Your task to perform on an android device: Open the Play Movies app and select the watchlist tab. Image 0: 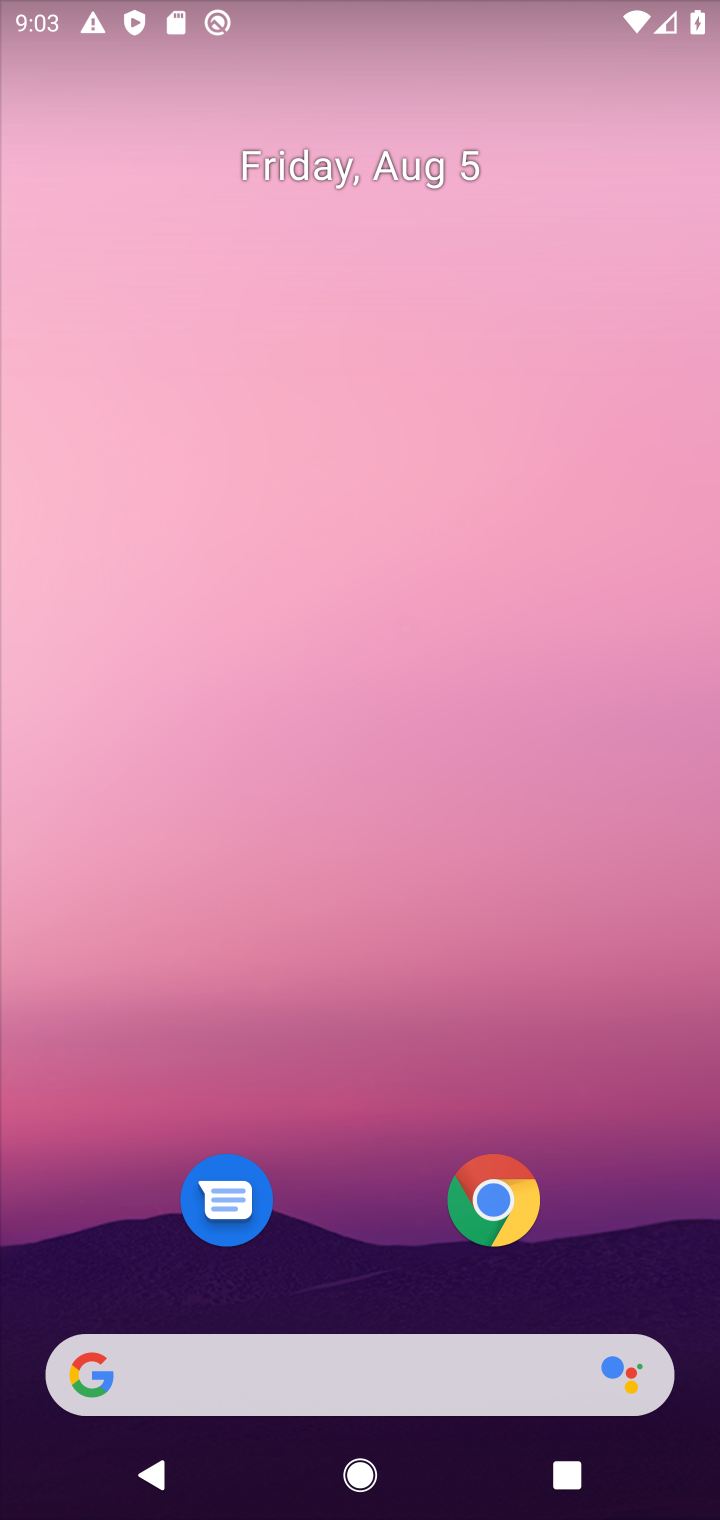
Step 0: drag from (635, 1145) to (548, 338)
Your task to perform on an android device: Open the Play Movies app and select the watchlist tab. Image 1: 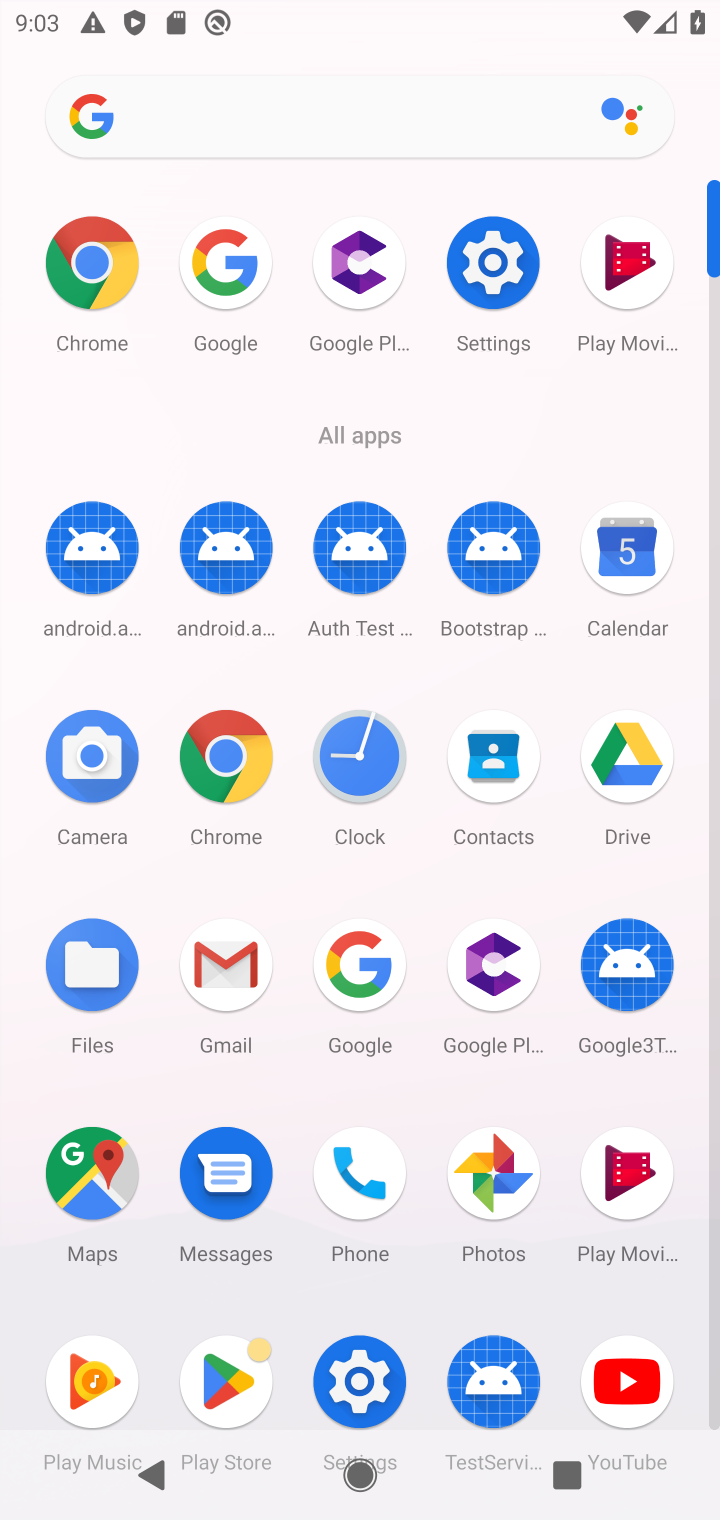
Step 1: click (632, 1165)
Your task to perform on an android device: Open the Play Movies app and select the watchlist tab. Image 2: 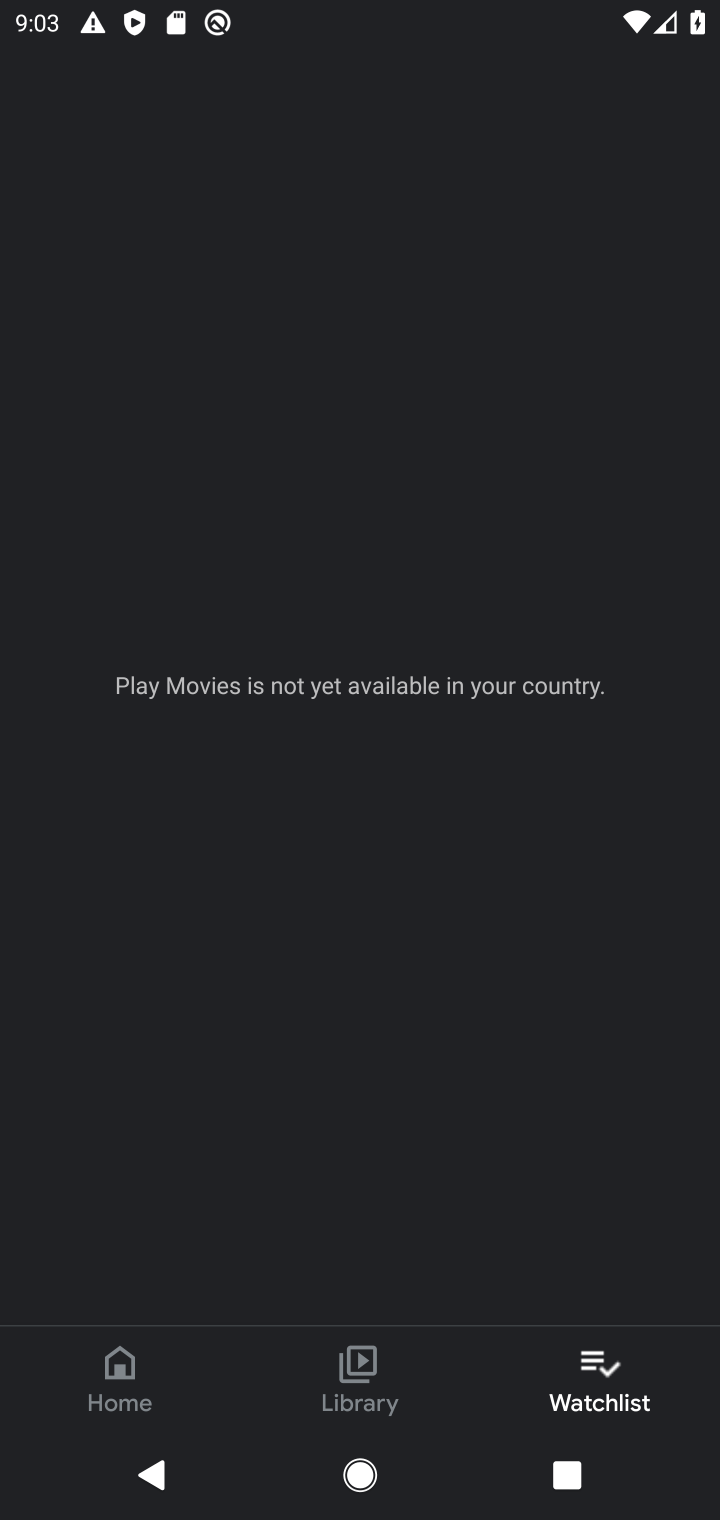
Step 2: click (601, 1373)
Your task to perform on an android device: Open the Play Movies app and select the watchlist tab. Image 3: 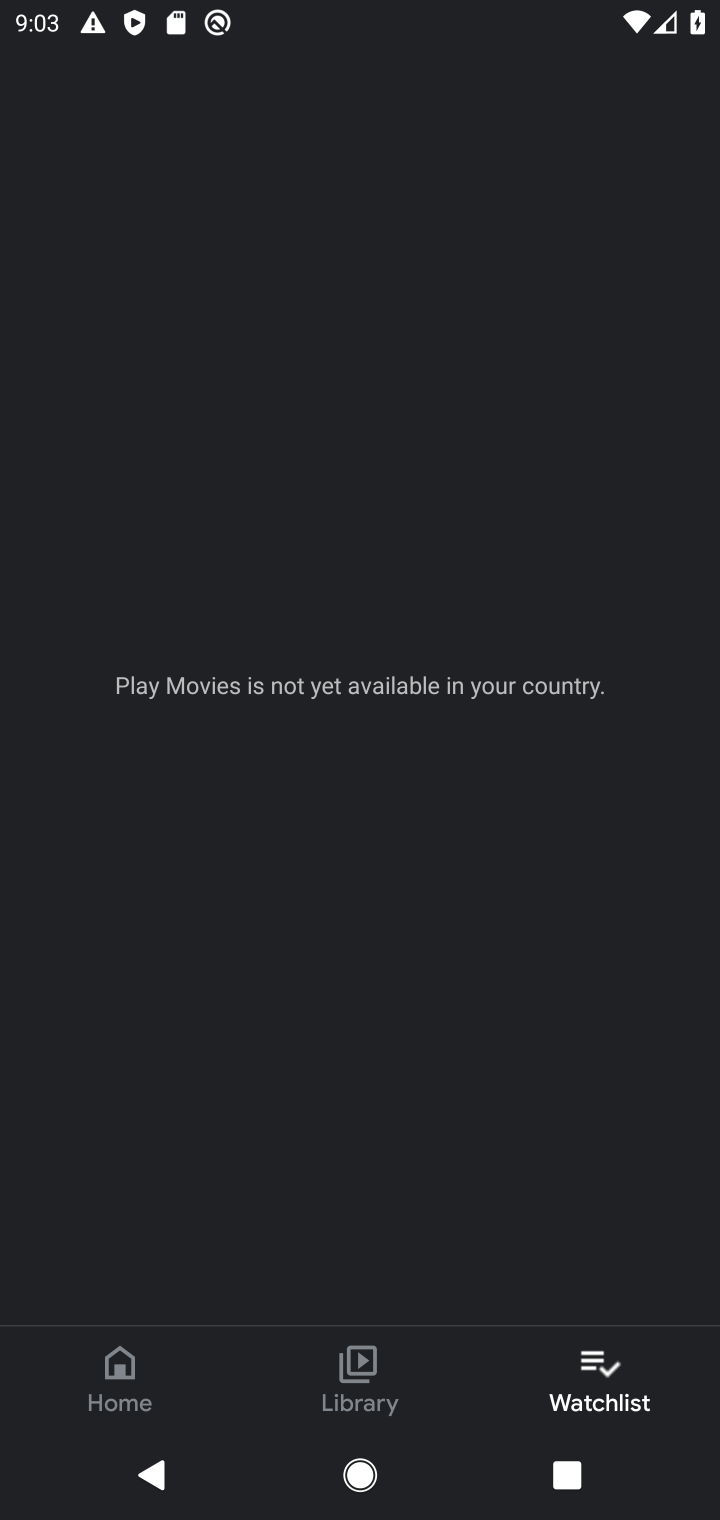
Step 3: task complete